Your task to perform on an android device: change notification settings in the gmail app Image 0: 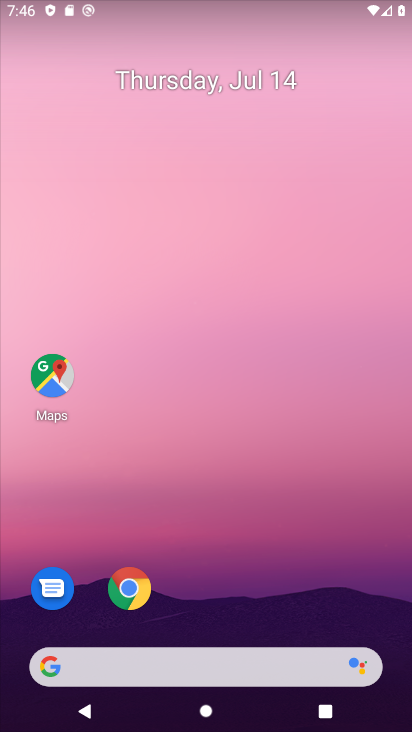
Step 0: drag from (300, 573) to (282, 132)
Your task to perform on an android device: change notification settings in the gmail app Image 1: 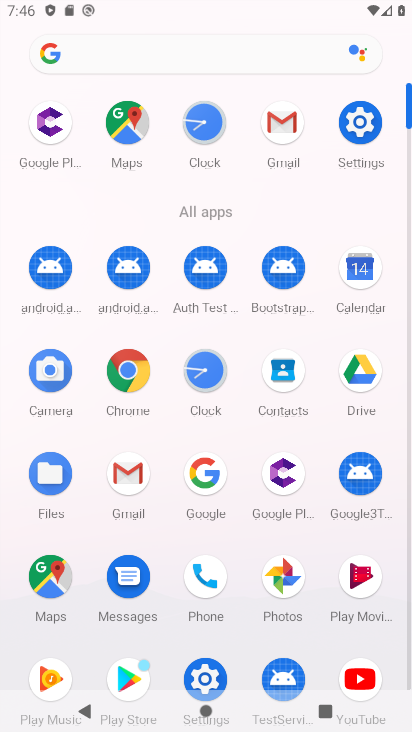
Step 1: click (282, 120)
Your task to perform on an android device: change notification settings in the gmail app Image 2: 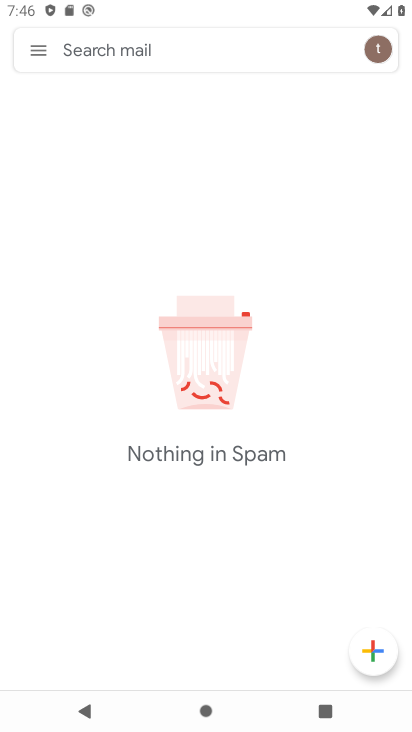
Step 2: click (29, 47)
Your task to perform on an android device: change notification settings in the gmail app Image 3: 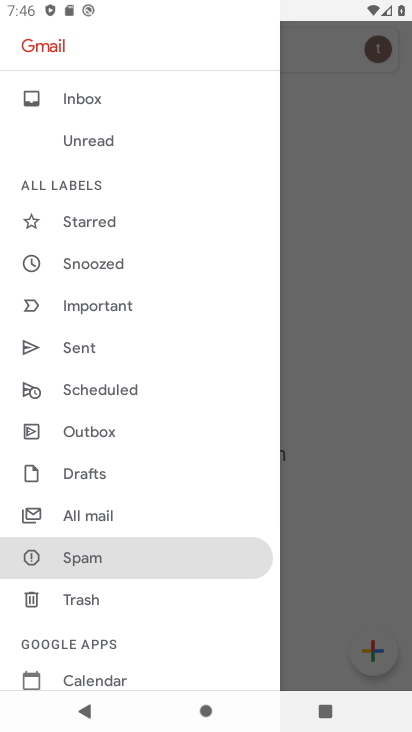
Step 3: drag from (115, 643) to (172, 331)
Your task to perform on an android device: change notification settings in the gmail app Image 4: 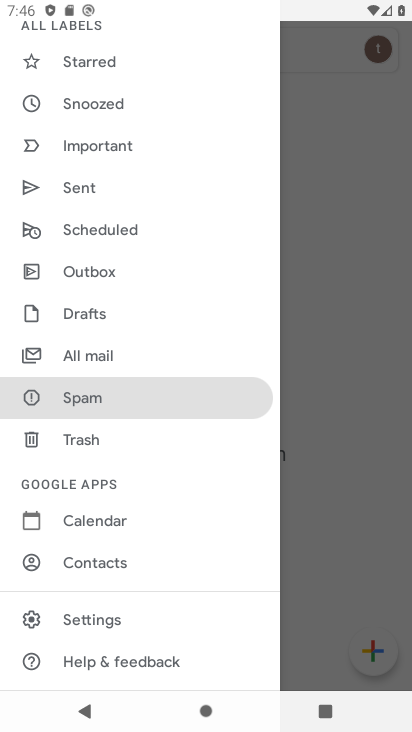
Step 4: click (107, 614)
Your task to perform on an android device: change notification settings in the gmail app Image 5: 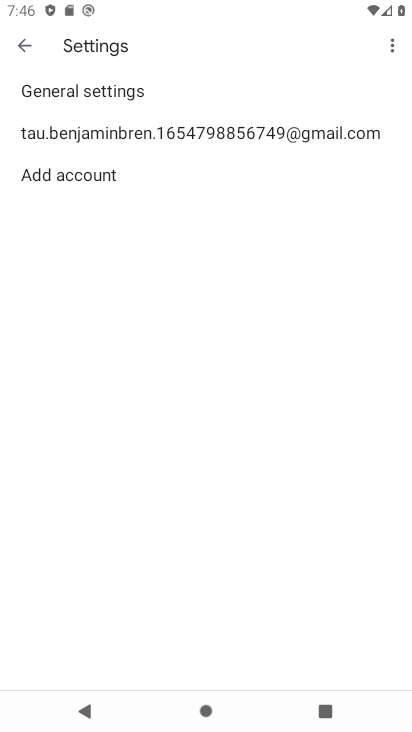
Step 5: click (240, 140)
Your task to perform on an android device: change notification settings in the gmail app Image 6: 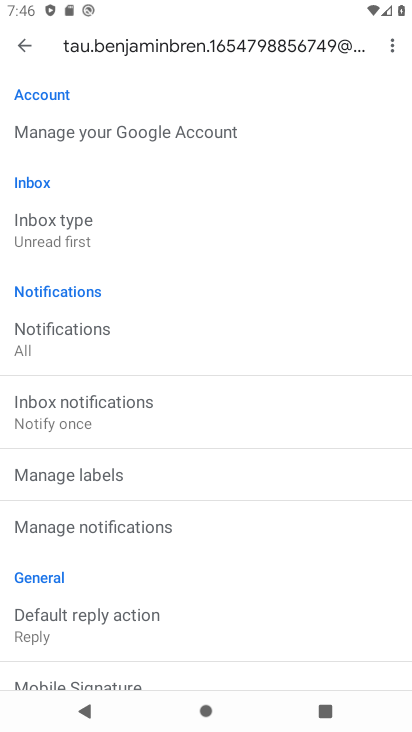
Step 6: click (117, 531)
Your task to perform on an android device: change notification settings in the gmail app Image 7: 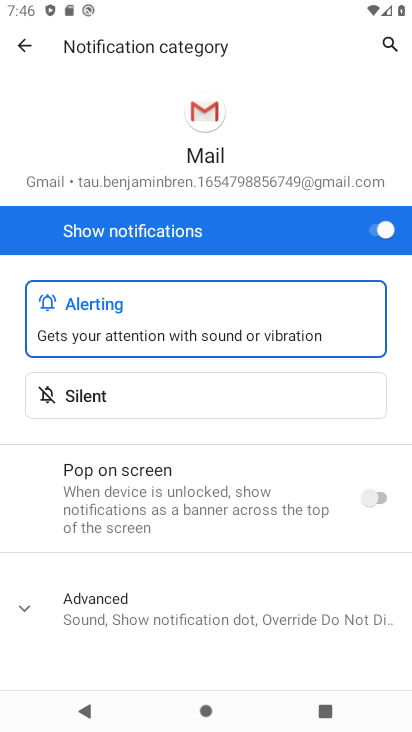
Step 7: click (390, 221)
Your task to perform on an android device: change notification settings in the gmail app Image 8: 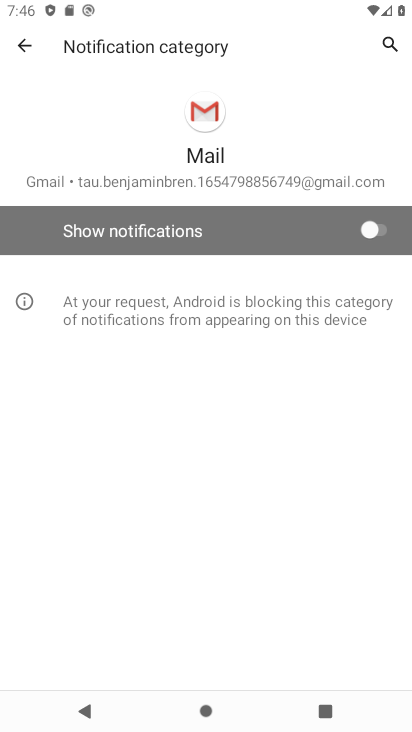
Step 8: task complete